Your task to perform on an android device: toggle pop-ups in chrome Image 0: 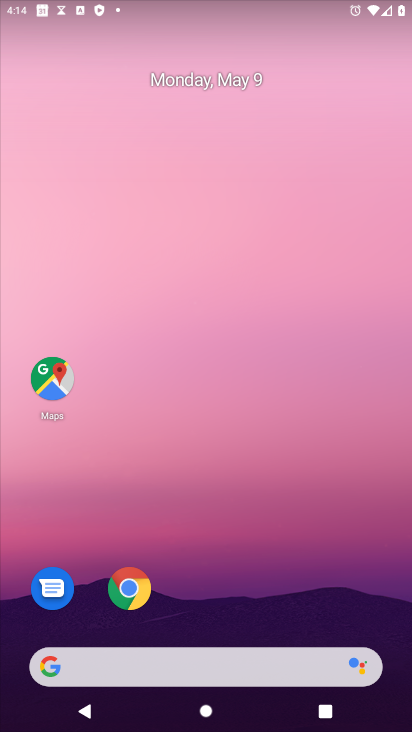
Step 0: click (130, 589)
Your task to perform on an android device: toggle pop-ups in chrome Image 1: 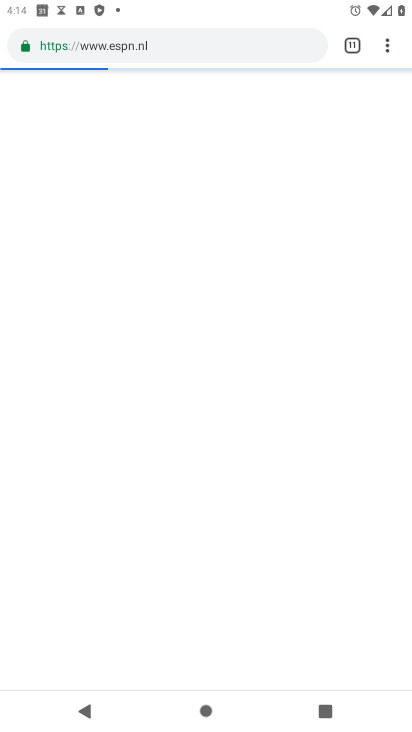
Step 1: click (386, 43)
Your task to perform on an android device: toggle pop-ups in chrome Image 2: 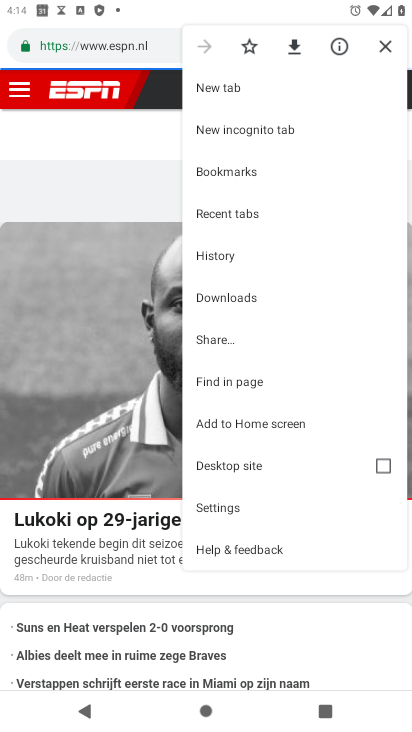
Step 2: click (258, 506)
Your task to perform on an android device: toggle pop-ups in chrome Image 3: 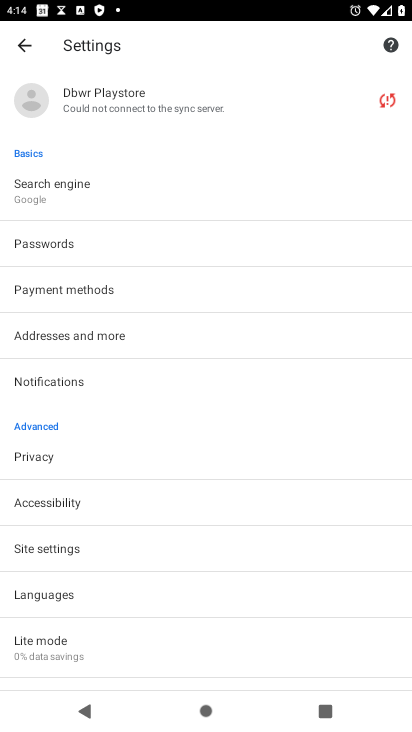
Step 3: click (104, 549)
Your task to perform on an android device: toggle pop-ups in chrome Image 4: 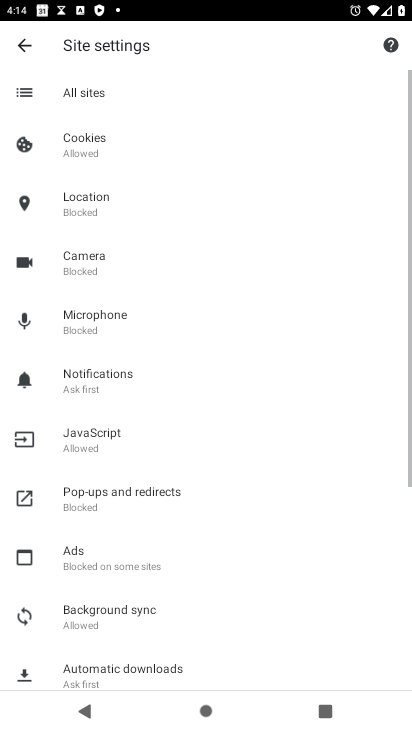
Step 4: click (102, 498)
Your task to perform on an android device: toggle pop-ups in chrome Image 5: 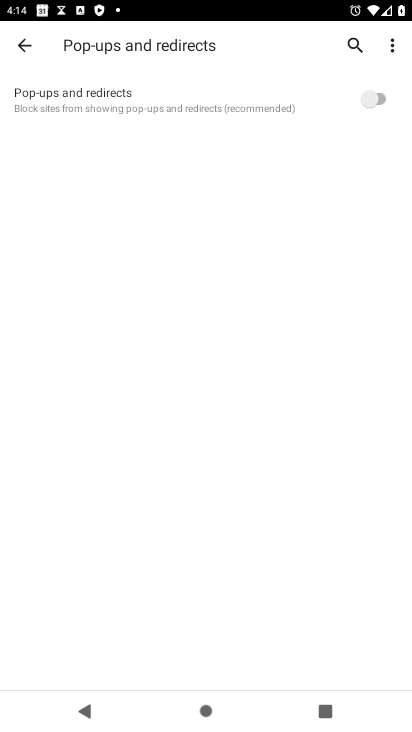
Step 5: click (369, 93)
Your task to perform on an android device: toggle pop-ups in chrome Image 6: 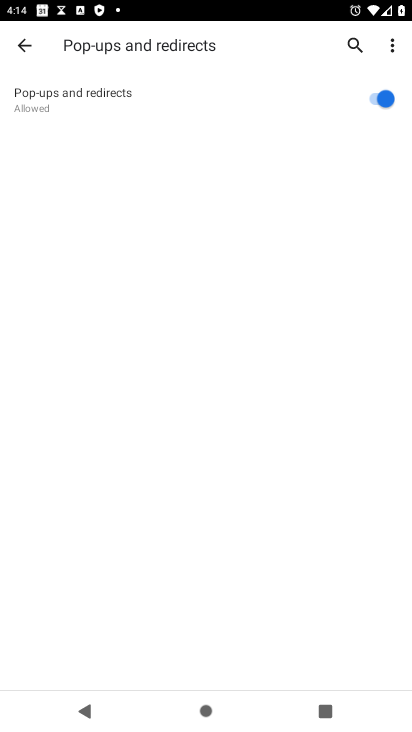
Step 6: task complete